Your task to perform on an android device: turn on translation in the chrome app Image 0: 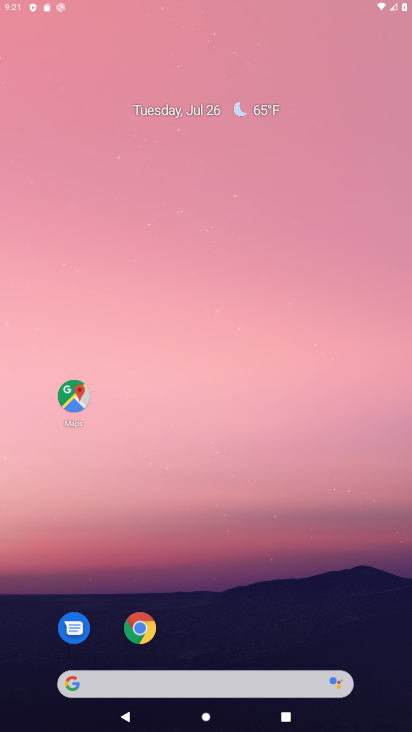
Step 0: click (172, 68)
Your task to perform on an android device: turn on translation in the chrome app Image 1: 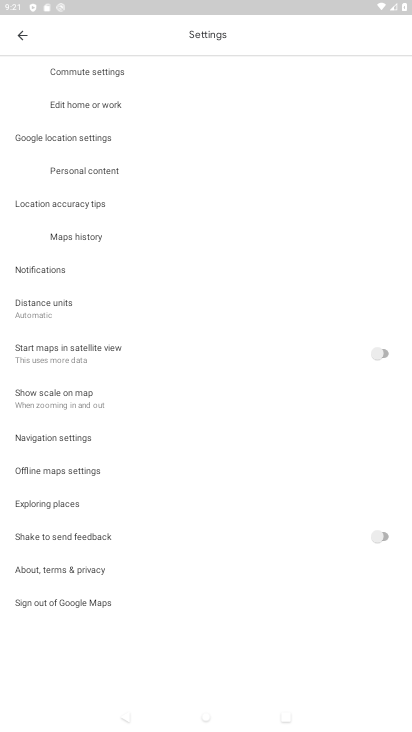
Step 1: press home button
Your task to perform on an android device: turn on translation in the chrome app Image 2: 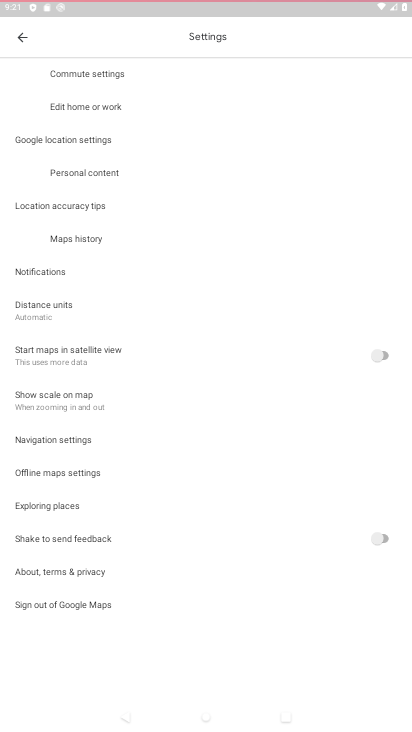
Step 2: press home button
Your task to perform on an android device: turn on translation in the chrome app Image 3: 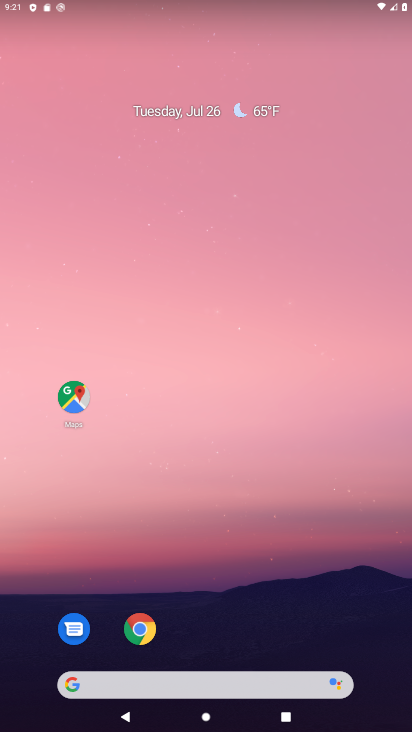
Step 3: drag from (275, 568) to (80, 36)
Your task to perform on an android device: turn on translation in the chrome app Image 4: 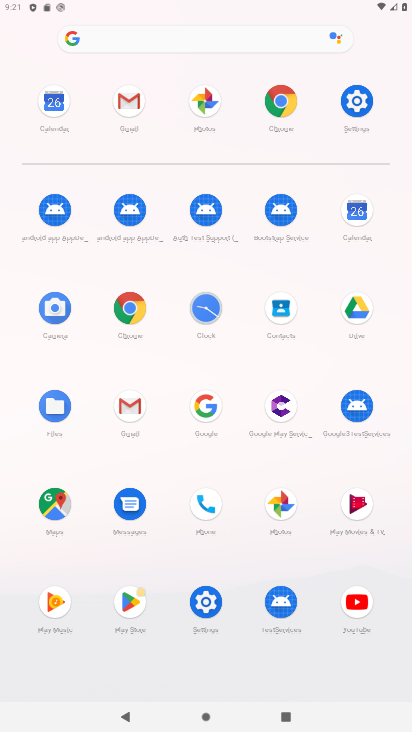
Step 4: click (281, 106)
Your task to perform on an android device: turn on translation in the chrome app Image 5: 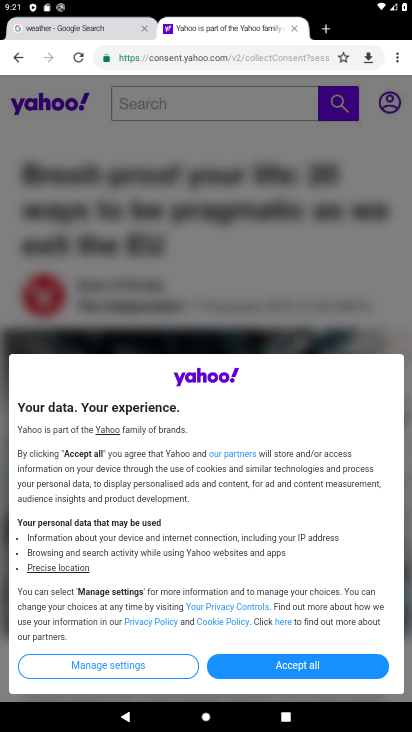
Step 5: drag from (392, 57) to (283, 381)
Your task to perform on an android device: turn on translation in the chrome app Image 6: 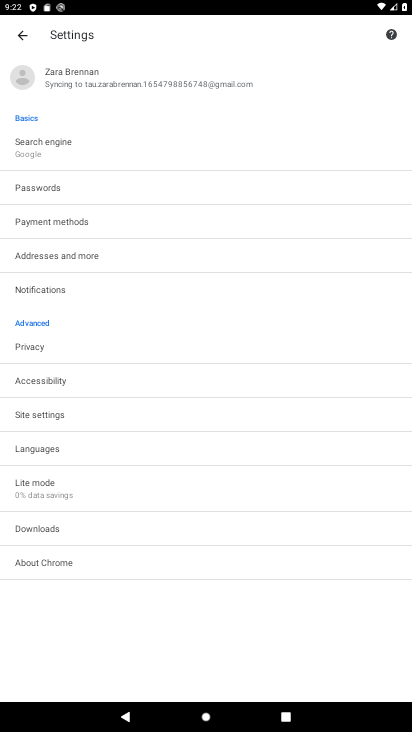
Step 6: click (61, 451)
Your task to perform on an android device: turn on translation in the chrome app Image 7: 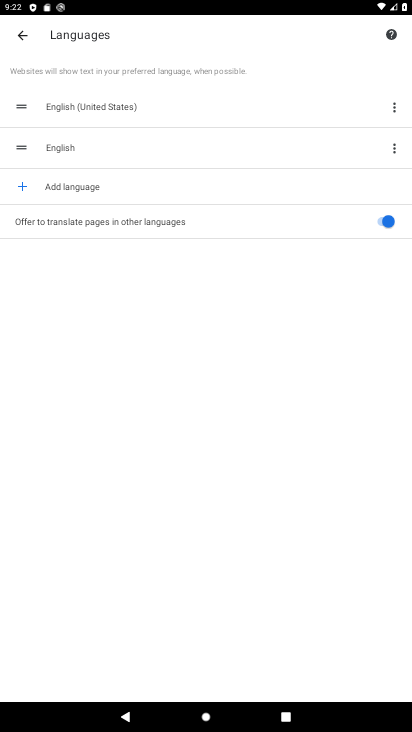
Step 7: task complete